Your task to perform on an android device: turn off data saver in the chrome app Image 0: 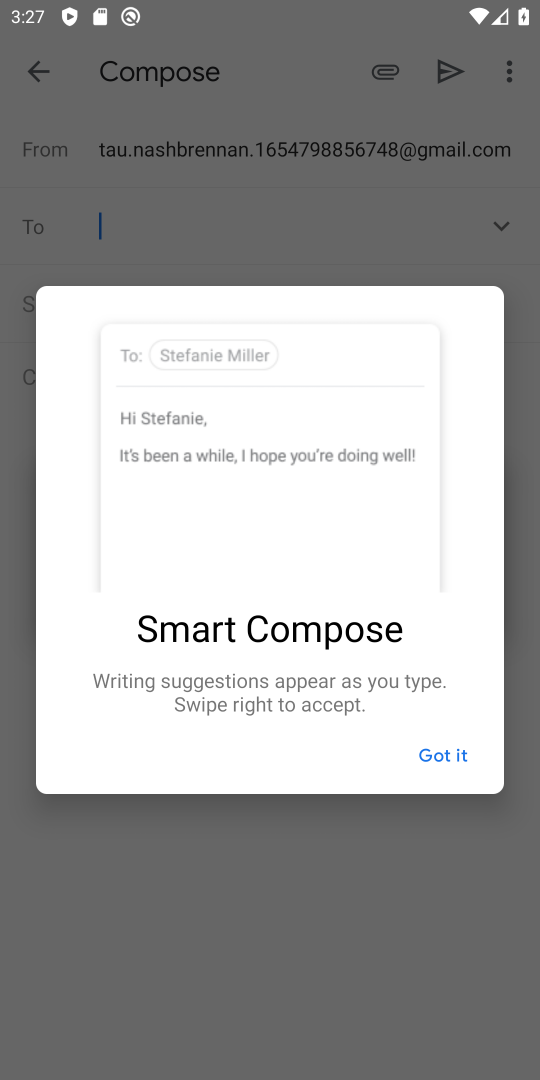
Step 0: press home button
Your task to perform on an android device: turn off data saver in the chrome app Image 1: 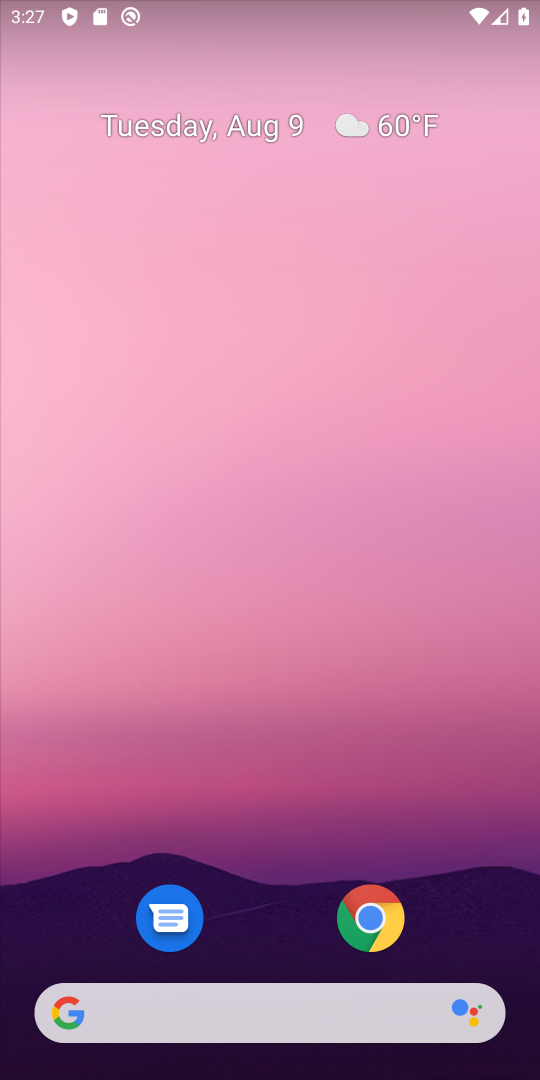
Step 1: click (366, 936)
Your task to perform on an android device: turn off data saver in the chrome app Image 2: 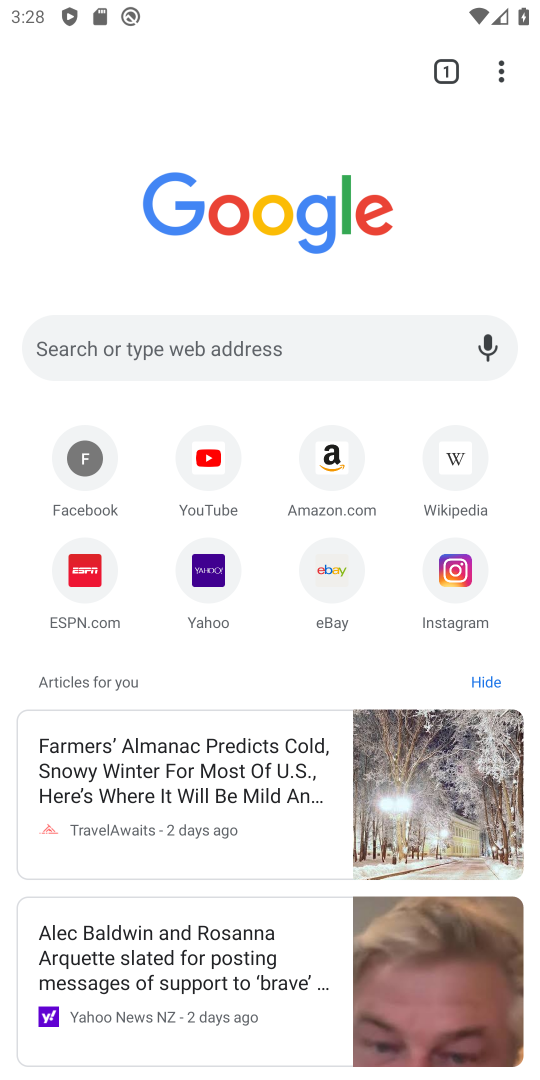
Step 2: drag from (506, 67) to (275, 673)
Your task to perform on an android device: turn off data saver in the chrome app Image 3: 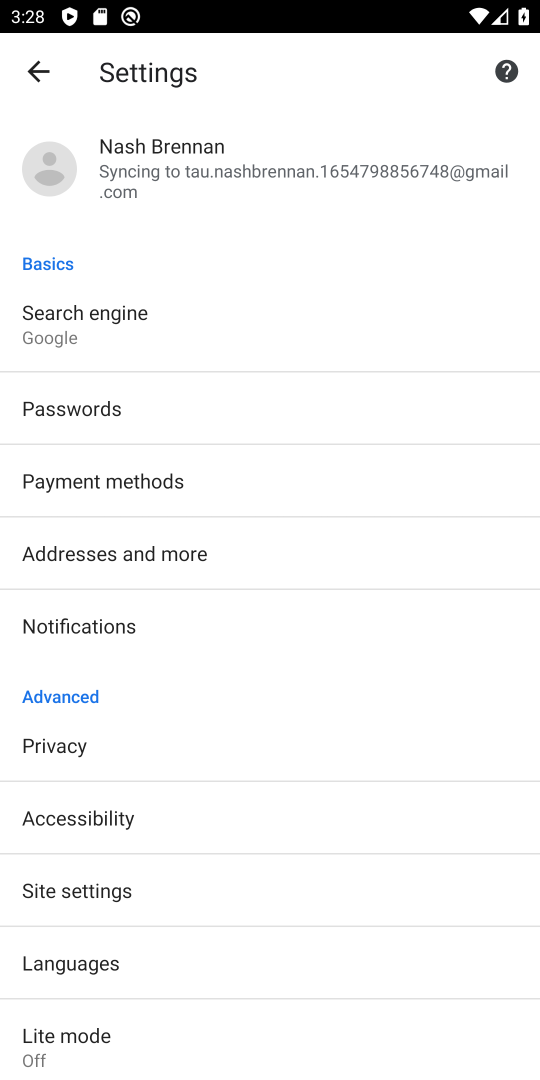
Step 3: click (146, 1026)
Your task to perform on an android device: turn off data saver in the chrome app Image 4: 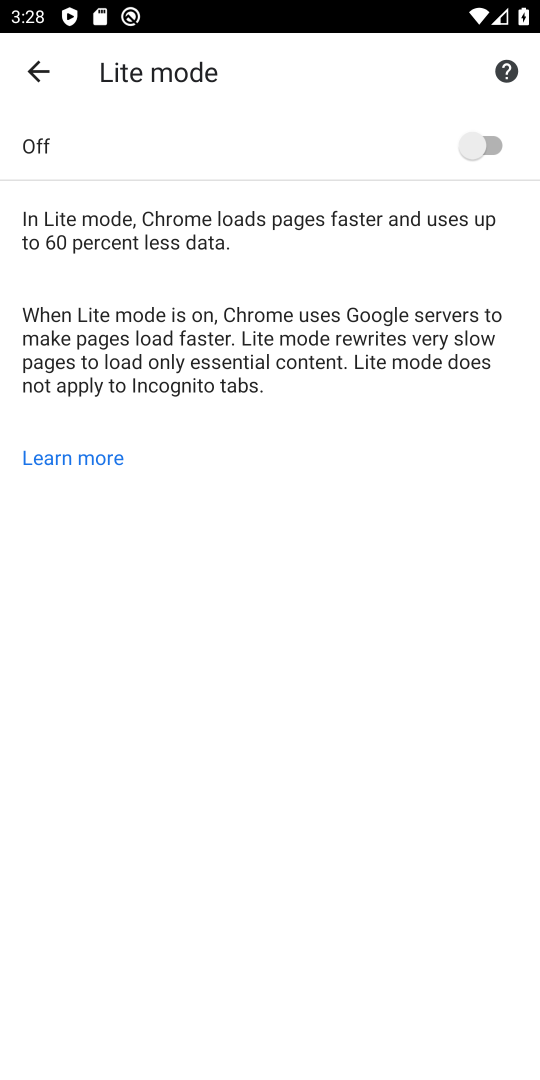
Step 4: task complete